Your task to perform on an android device: turn off javascript in the chrome app Image 0: 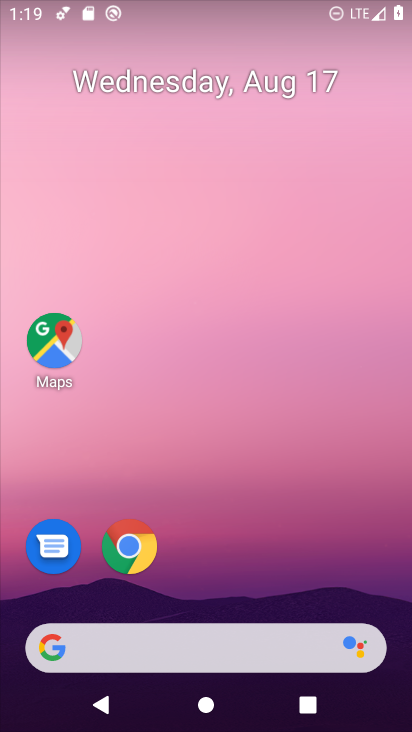
Step 0: click (128, 549)
Your task to perform on an android device: turn off javascript in the chrome app Image 1: 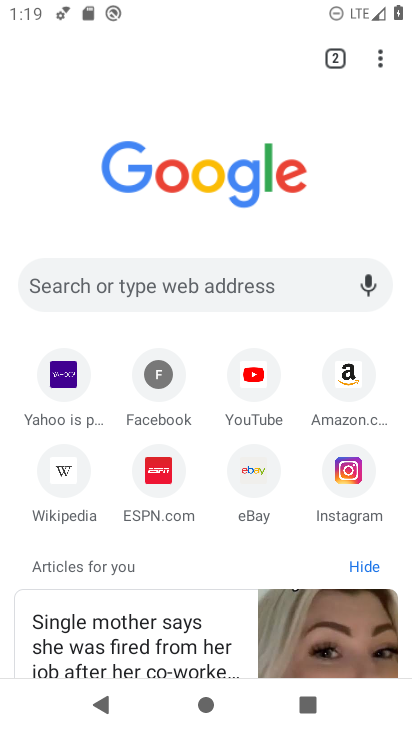
Step 1: click (385, 57)
Your task to perform on an android device: turn off javascript in the chrome app Image 2: 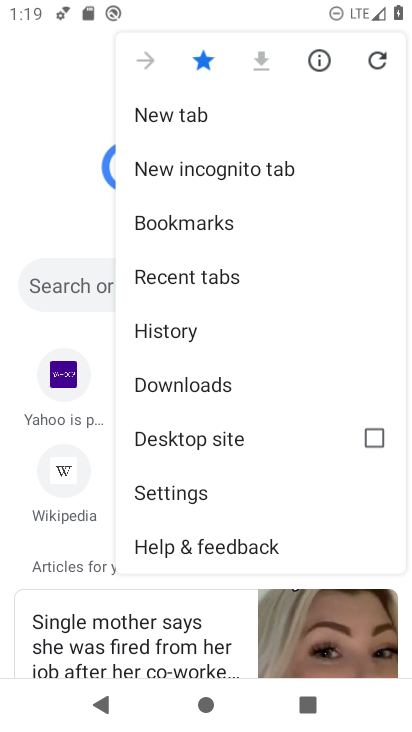
Step 2: click (196, 496)
Your task to perform on an android device: turn off javascript in the chrome app Image 3: 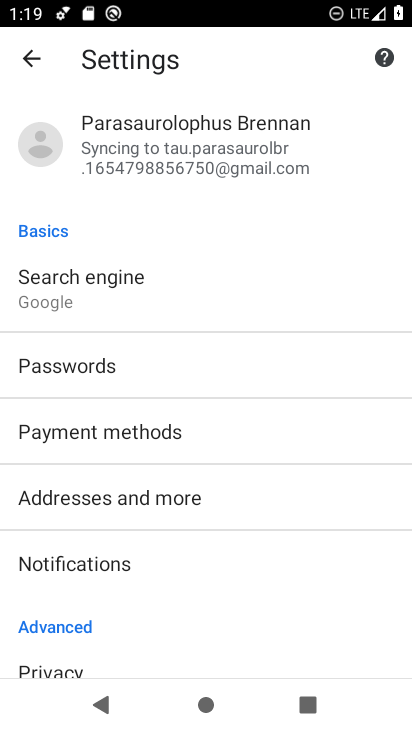
Step 3: drag from (225, 598) to (228, 201)
Your task to perform on an android device: turn off javascript in the chrome app Image 4: 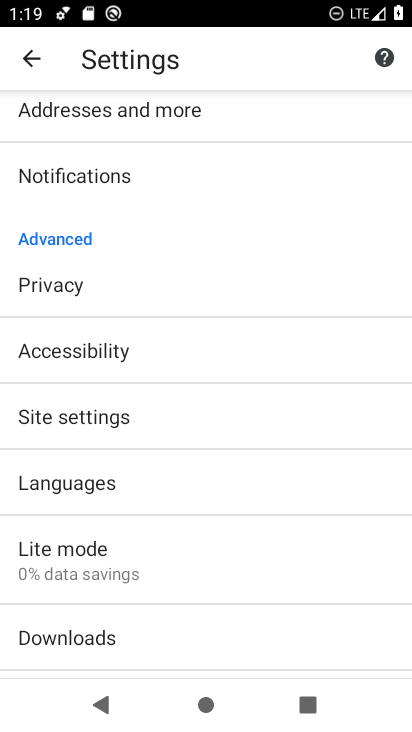
Step 4: click (75, 415)
Your task to perform on an android device: turn off javascript in the chrome app Image 5: 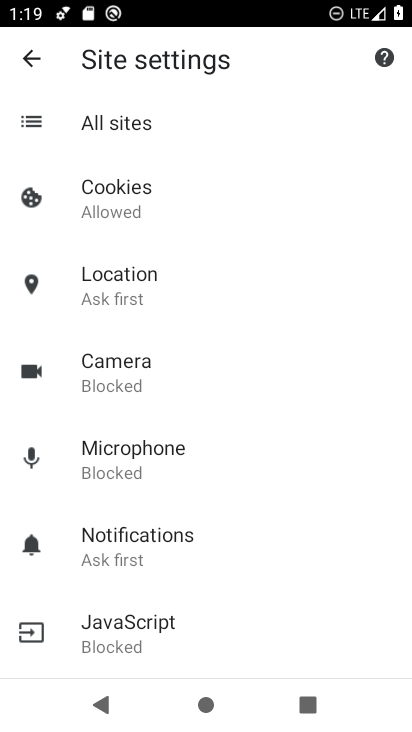
Step 5: click (129, 618)
Your task to perform on an android device: turn off javascript in the chrome app Image 6: 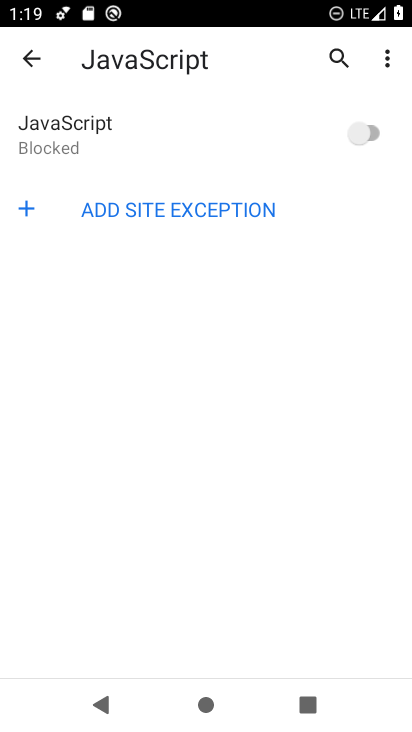
Step 6: task complete